Your task to perform on an android device: View the shopping cart on walmart.com. Add razer blade to the cart on walmart.com, then select checkout. Image 0: 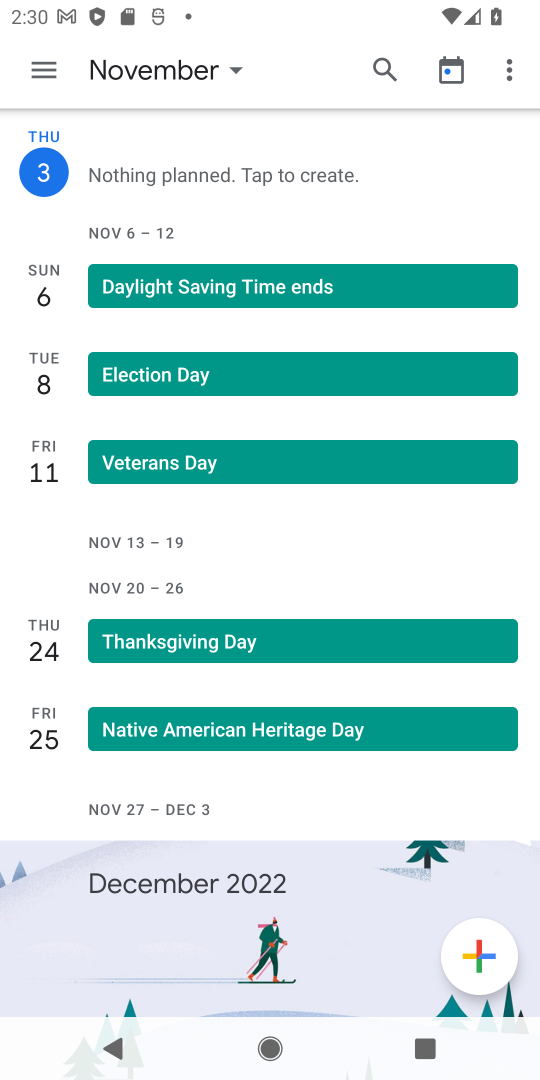
Step 0: press home button
Your task to perform on an android device: View the shopping cart on walmart.com. Add razer blade to the cart on walmart.com, then select checkout. Image 1: 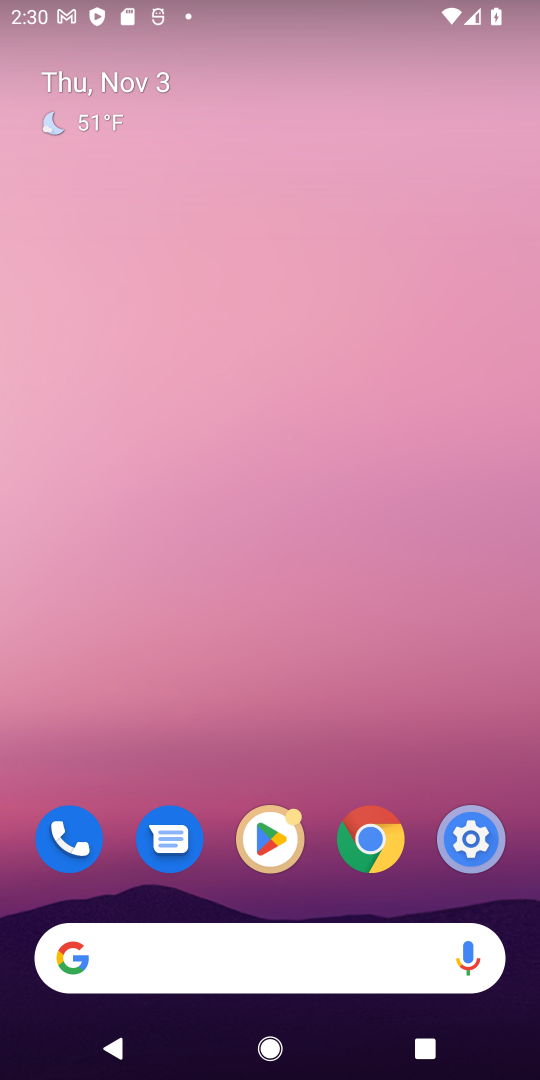
Step 1: click (313, 960)
Your task to perform on an android device: View the shopping cart on walmart.com. Add razer blade to the cart on walmart.com, then select checkout. Image 2: 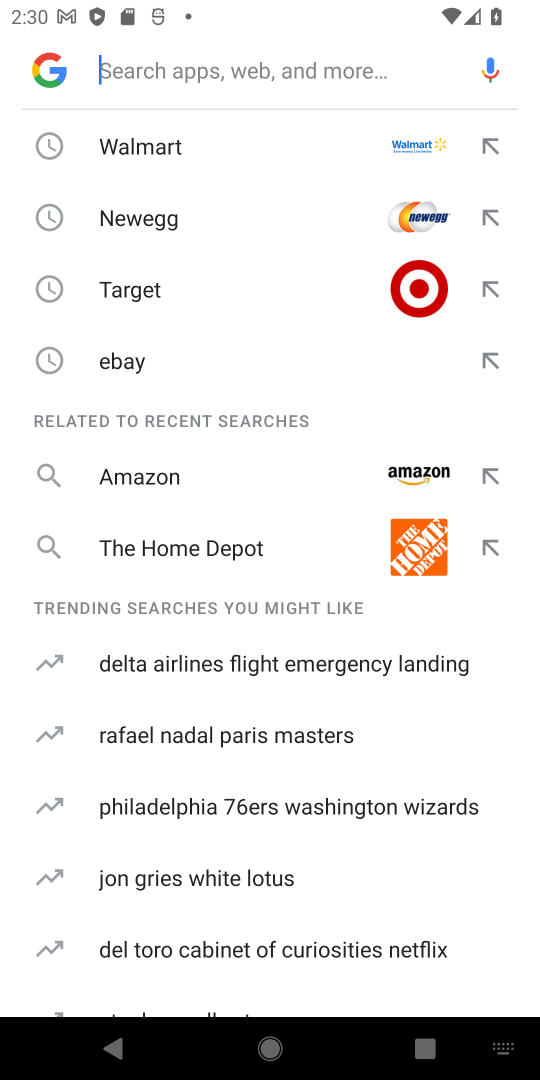
Step 2: click (211, 162)
Your task to perform on an android device: View the shopping cart on walmart.com. Add razer blade to the cart on walmart.com, then select checkout. Image 3: 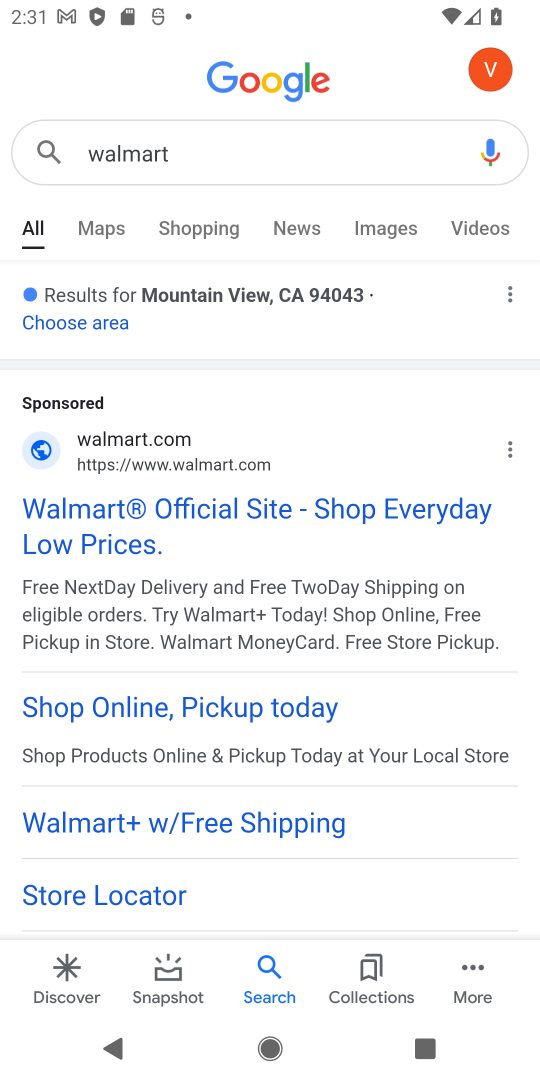
Step 3: click (106, 551)
Your task to perform on an android device: View the shopping cart on walmart.com. Add razer blade to the cart on walmart.com, then select checkout. Image 4: 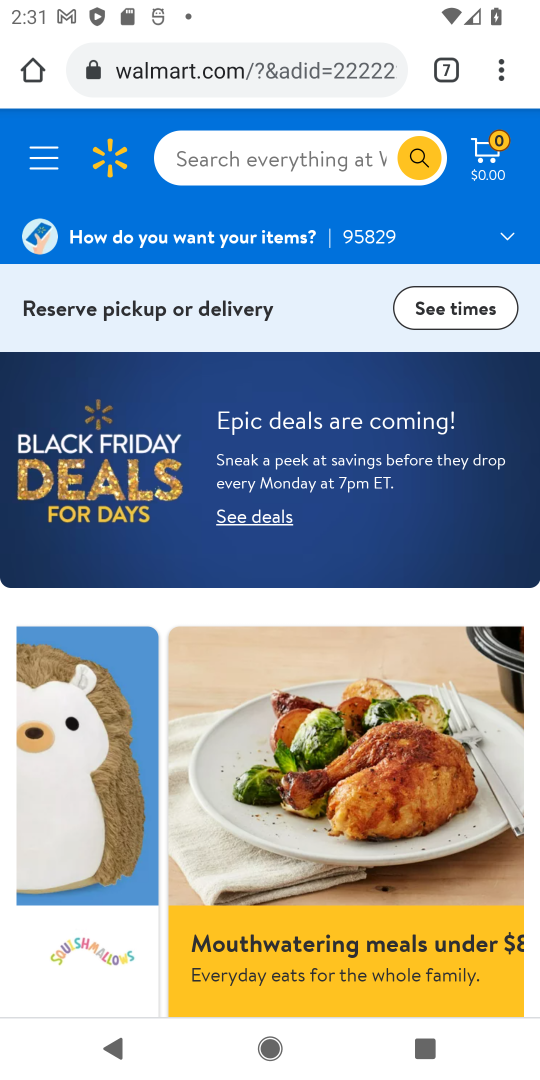
Step 4: click (233, 159)
Your task to perform on an android device: View the shopping cart on walmart.com. Add razer blade to the cart on walmart.com, then select checkout. Image 5: 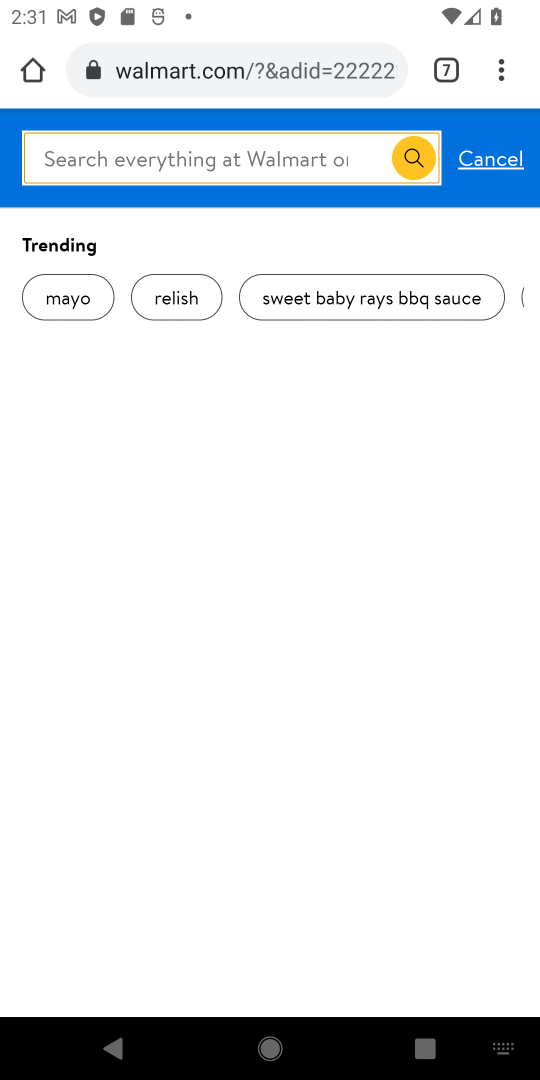
Step 5: type "razer blade"
Your task to perform on an android device: View the shopping cart on walmart.com. Add razer blade to the cart on walmart.com, then select checkout. Image 6: 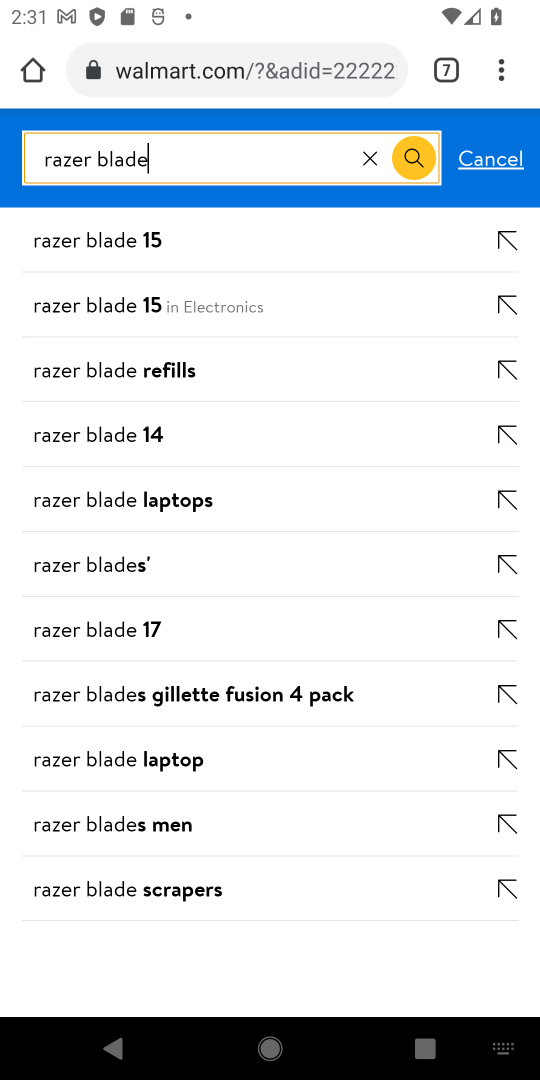
Step 6: click (125, 247)
Your task to perform on an android device: View the shopping cart on walmart.com. Add razer blade to the cart on walmart.com, then select checkout. Image 7: 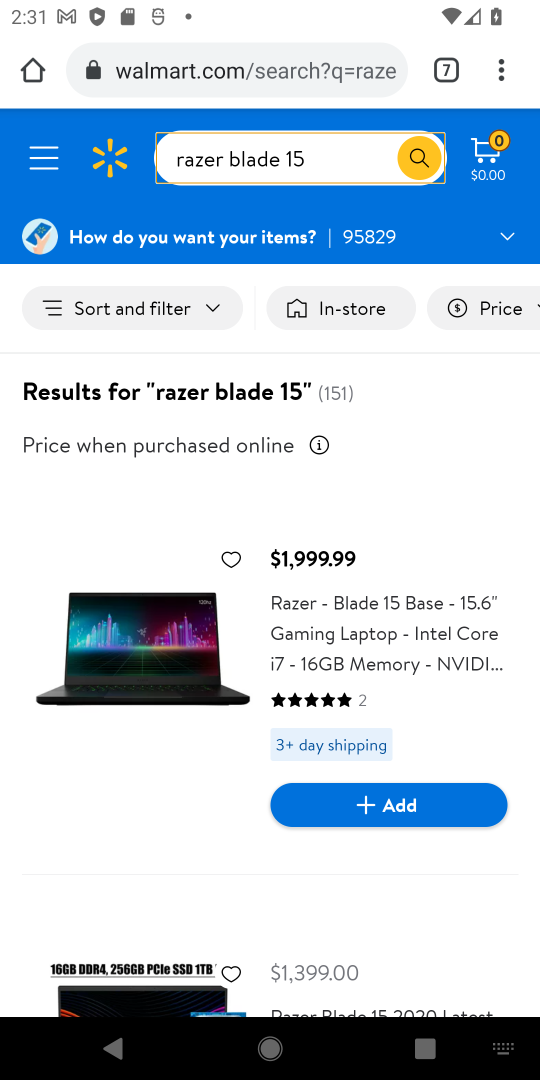
Step 7: click (385, 794)
Your task to perform on an android device: View the shopping cart on walmart.com. Add razer blade to the cart on walmart.com, then select checkout. Image 8: 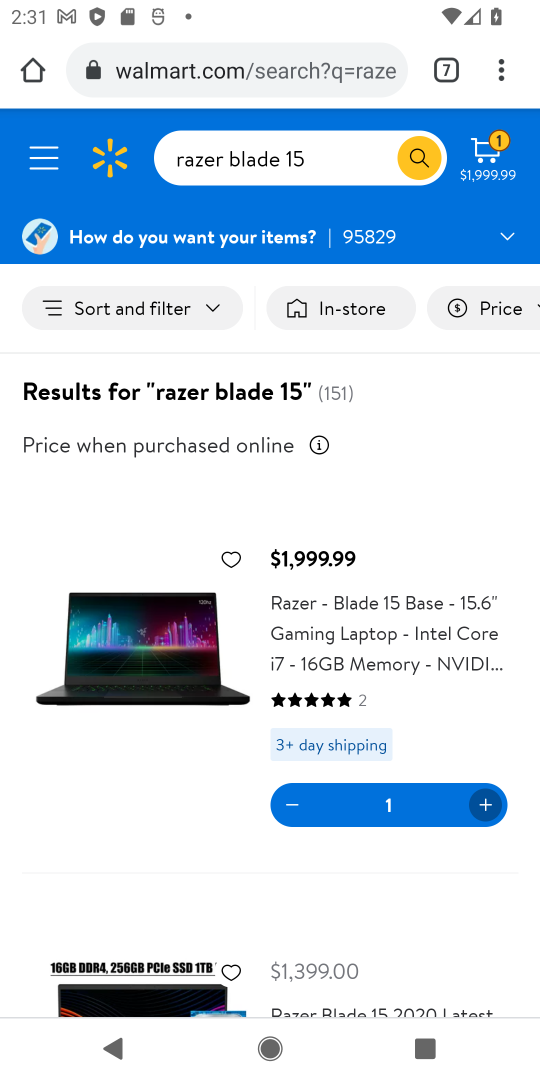
Step 8: task complete